Your task to perform on an android device: toggle show notifications on the lock screen Image 0: 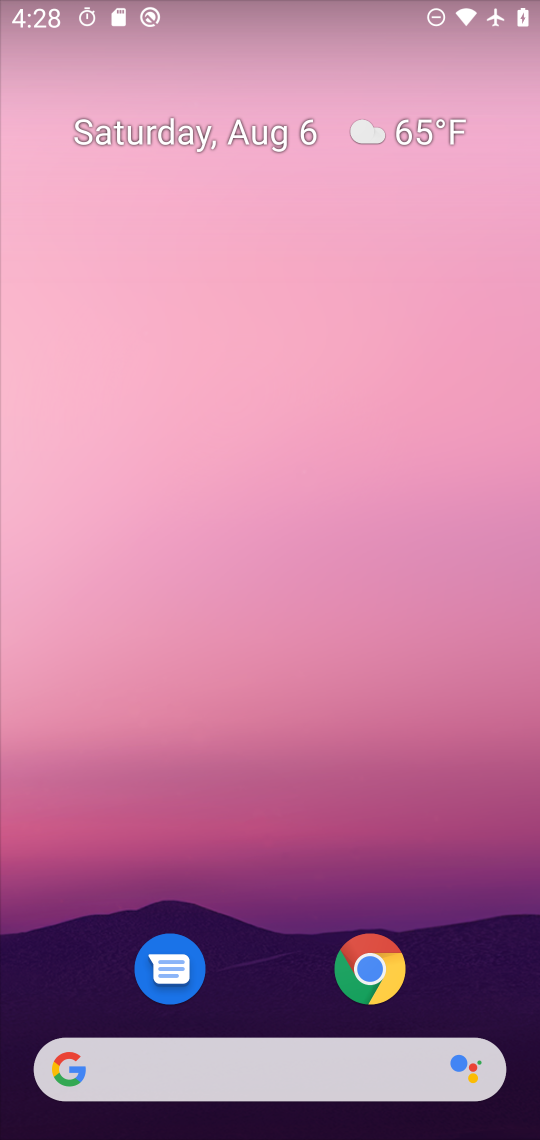
Step 0: press home button
Your task to perform on an android device: toggle show notifications on the lock screen Image 1: 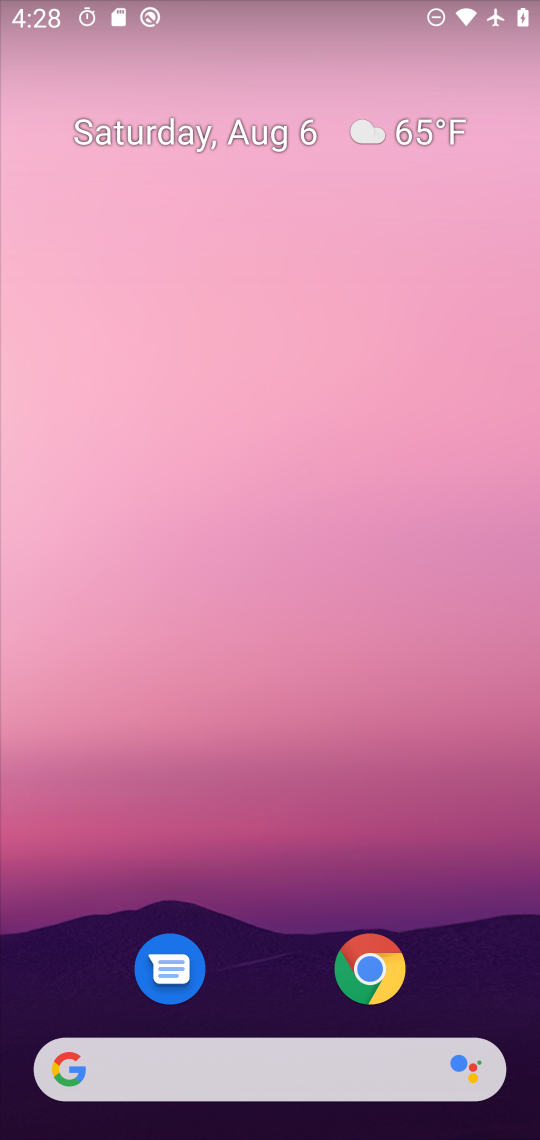
Step 1: drag from (251, 966) to (238, 196)
Your task to perform on an android device: toggle show notifications on the lock screen Image 2: 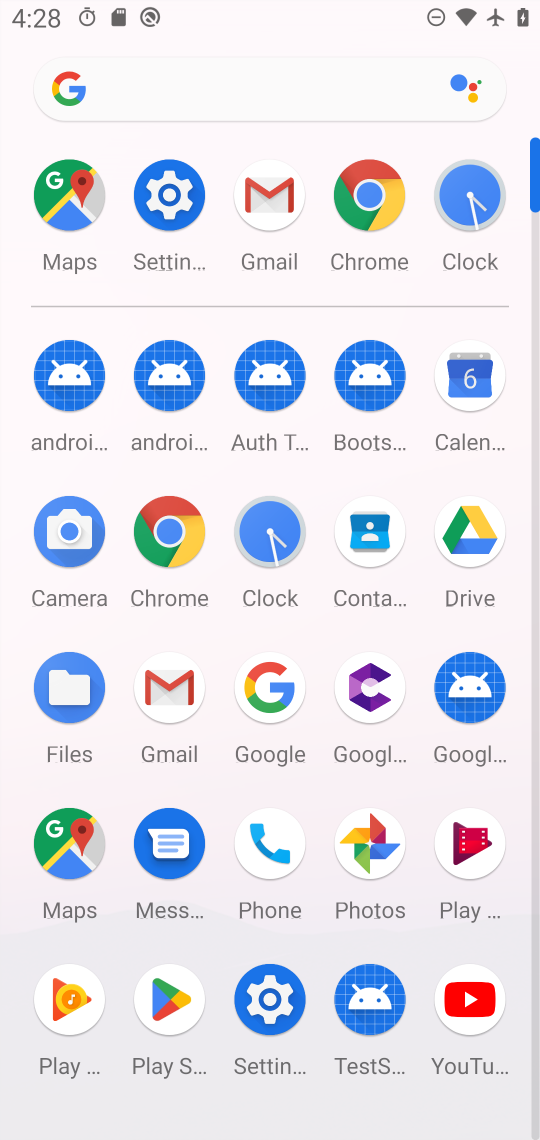
Step 2: click (176, 215)
Your task to perform on an android device: toggle show notifications on the lock screen Image 3: 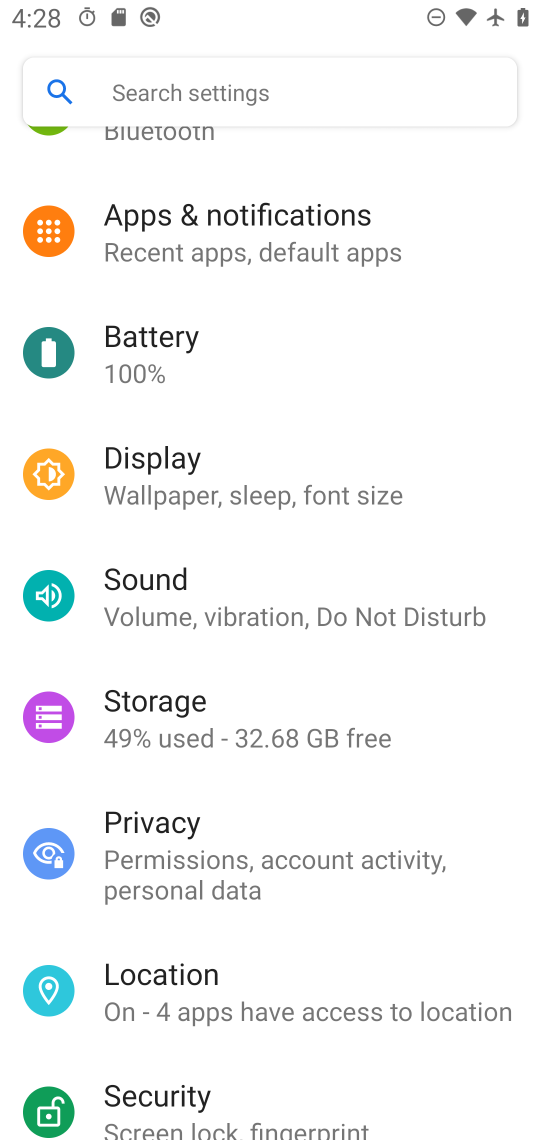
Step 3: click (258, 230)
Your task to perform on an android device: toggle show notifications on the lock screen Image 4: 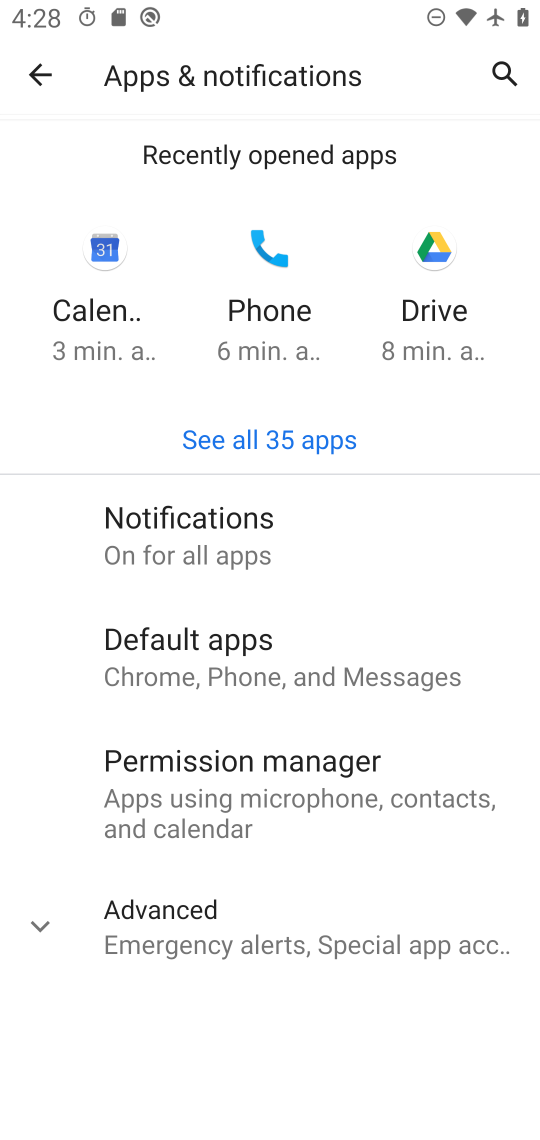
Step 4: click (231, 507)
Your task to perform on an android device: toggle show notifications on the lock screen Image 5: 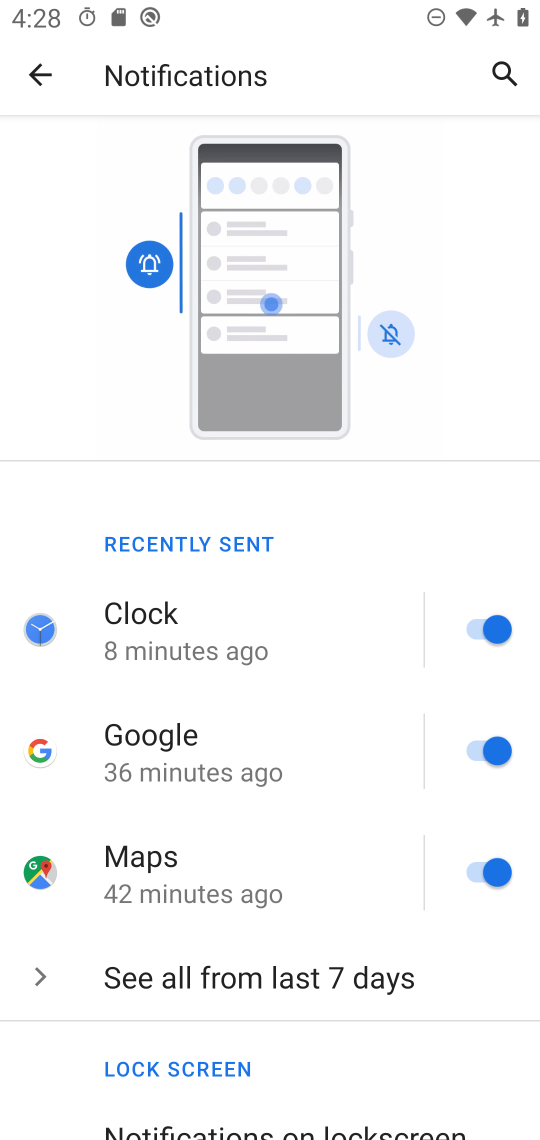
Step 5: click (255, 1091)
Your task to perform on an android device: toggle show notifications on the lock screen Image 6: 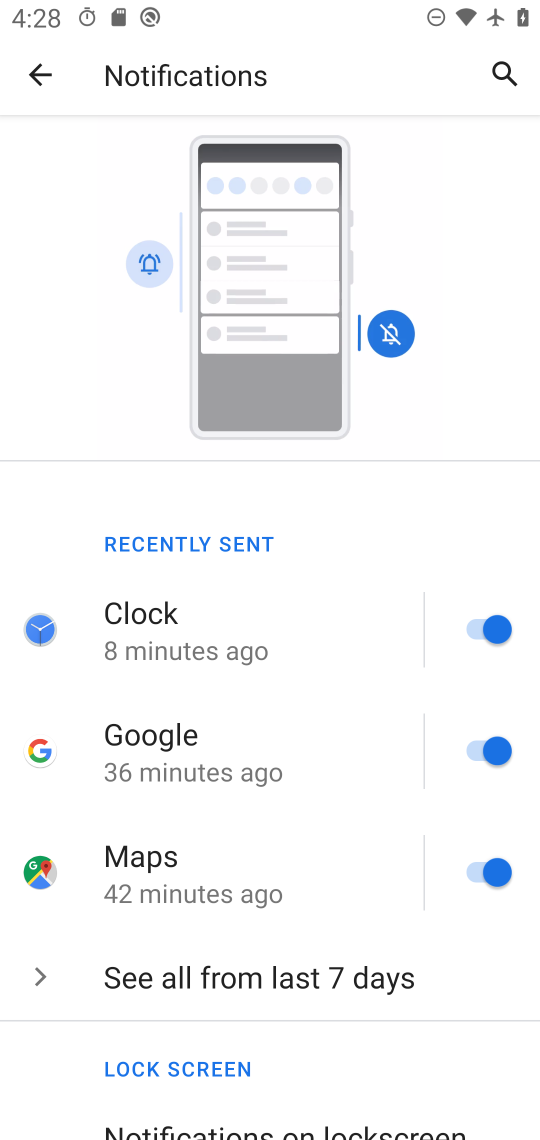
Step 6: click (235, 1120)
Your task to perform on an android device: toggle show notifications on the lock screen Image 7: 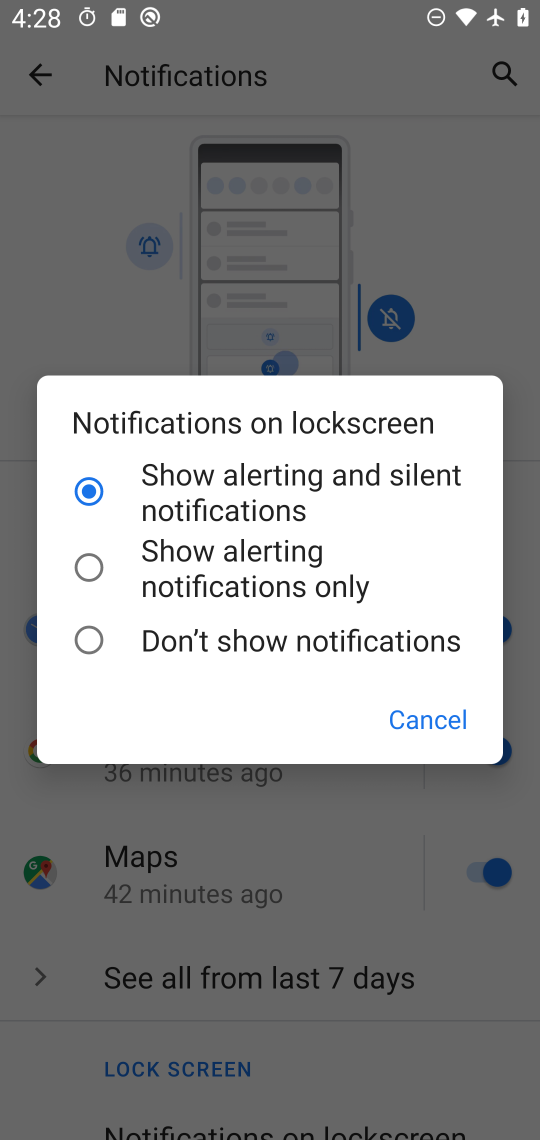
Step 7: click (96, 638)
Your task to perform on an android device: toggle show notifications on the lock screen Image 8: 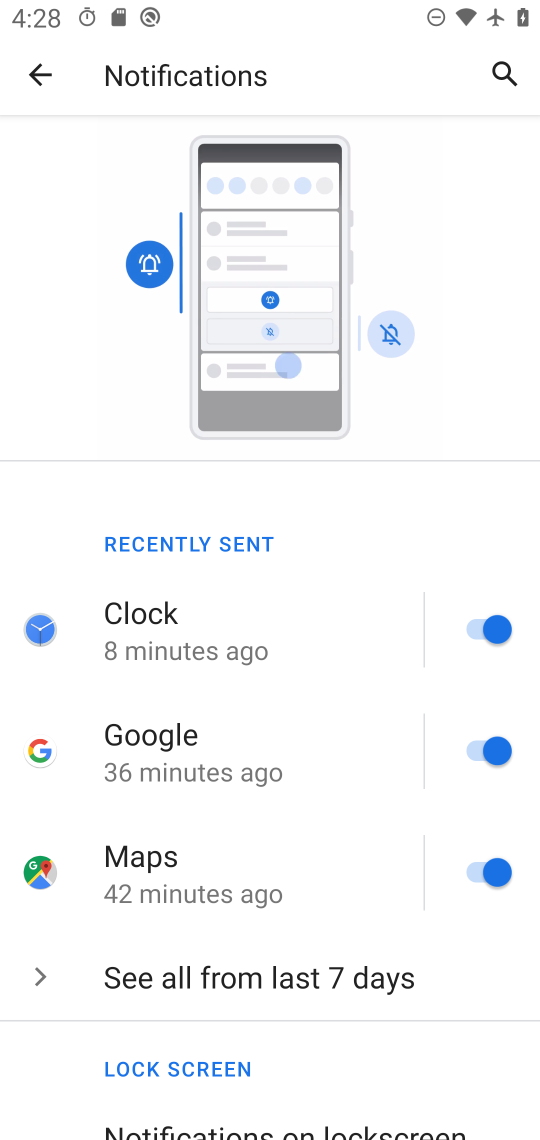
Step 8: task complete